Your task to perform on an android device: Open the stopwatch Image 0: 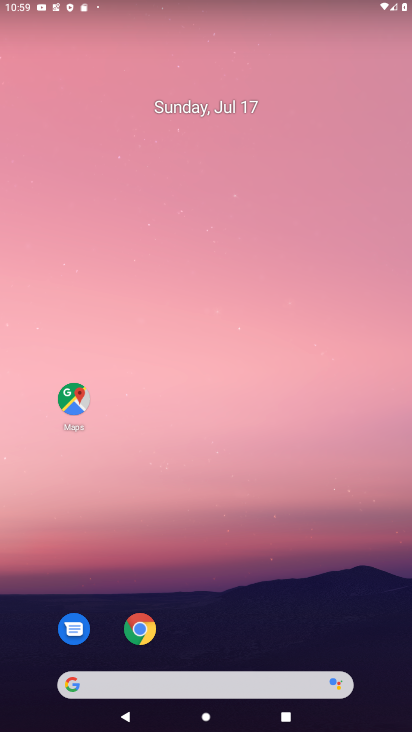
Step 0: drag from (295, 629) to (362, 0)
Your task to perform on an android device: Open the stopwatch Image 1: 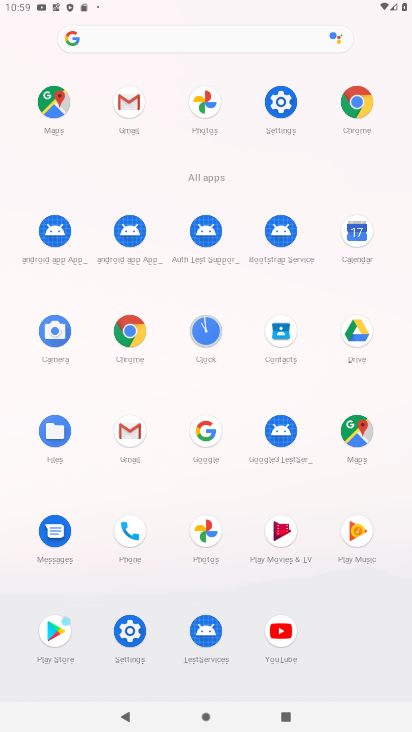
Step 1: click (198, 332)
Your task to perform on an android device: Open the stopwatch Image 2: 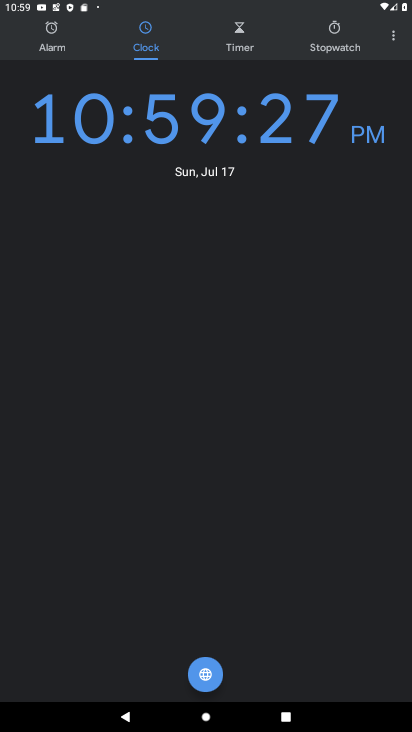
Step 2: click (331, 33)
Your task to perform on an android device: Open the stopwatch Image 3: 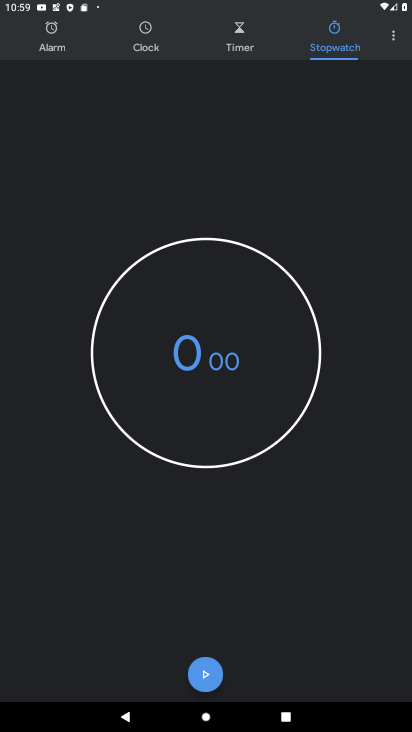
Step 3: click (196, 674)
Your task to perform on an android device: Open the stopwatch Image 4: 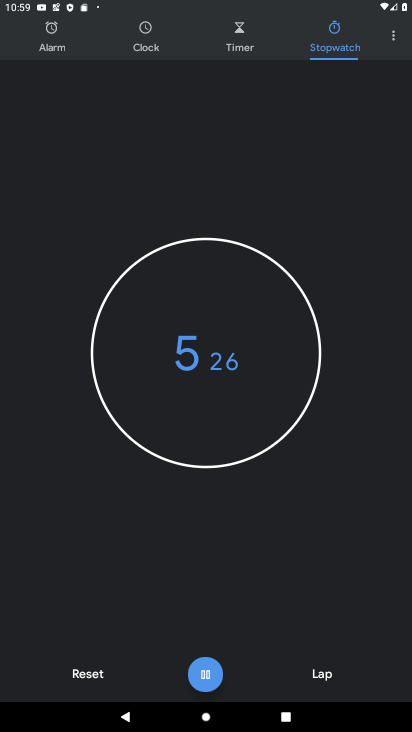
Step 4: task complete